Your task to perform on an android device: turn on wifi Image 0: 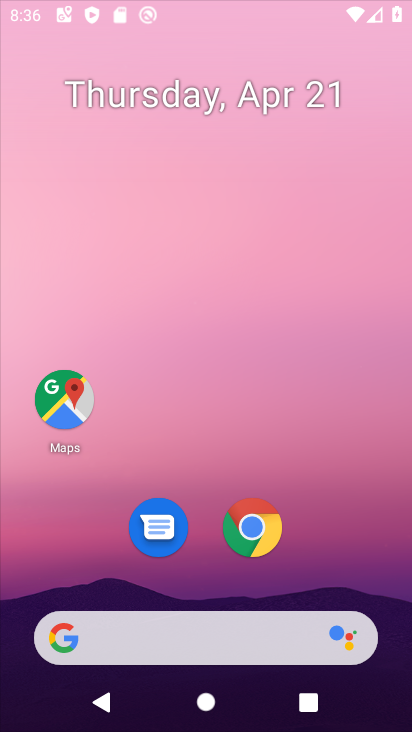
Step 0: click (278, 130)
Your task to perform on an android device: turn on wifi Image 1: 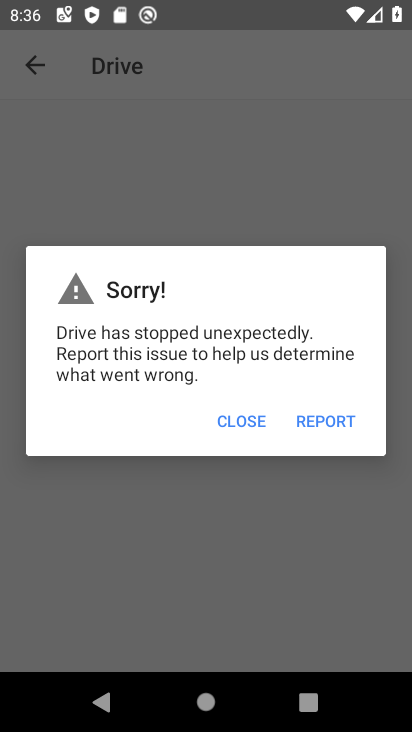
Step 1: press home button
Your task to perform on an android device: turn on wifi Image 2: 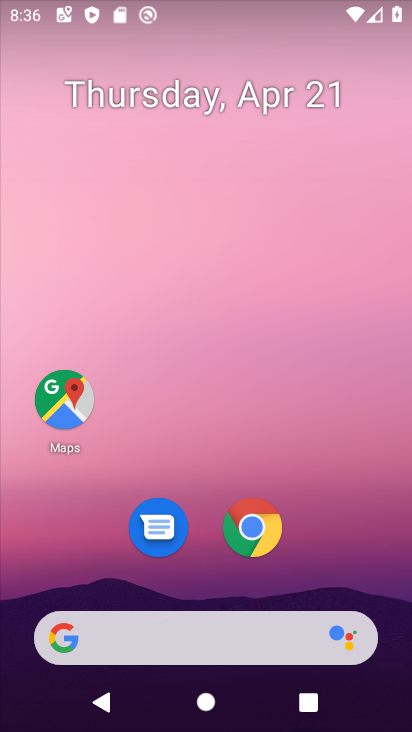
Step 2: drag from (184, 573) to (190, 111)
Your task to perform on an android device: turn on wifi Image 3: 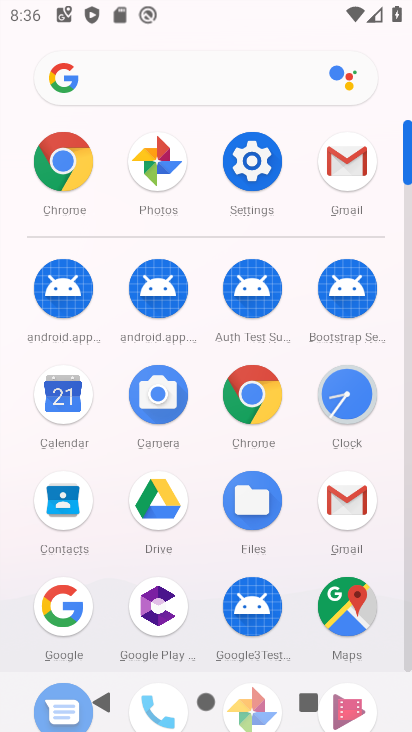
Step 3: click (269, 172)
Your task to perform on an android device: turn on wifi Image 4: 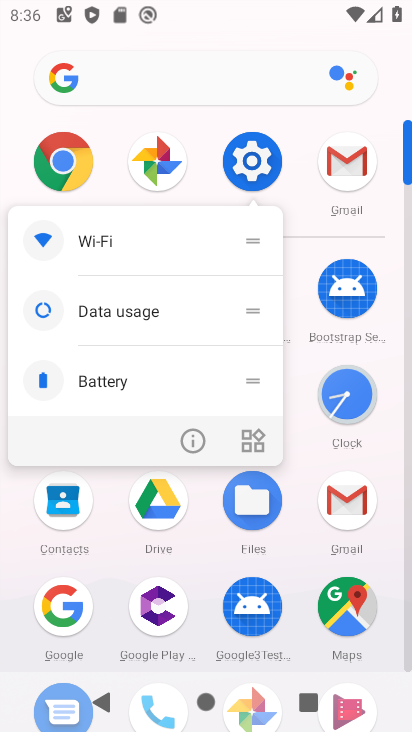
Step 4: click (269, 172)
Your task to perform on an android device: turn on wifi Image 5: 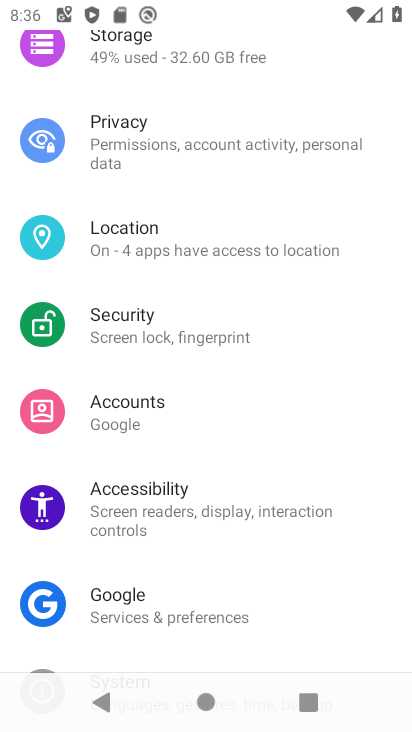
Step 5: drag from (241, 306) to (188, 576)
Your task to perform on an android device: turn on wifi Image 6: 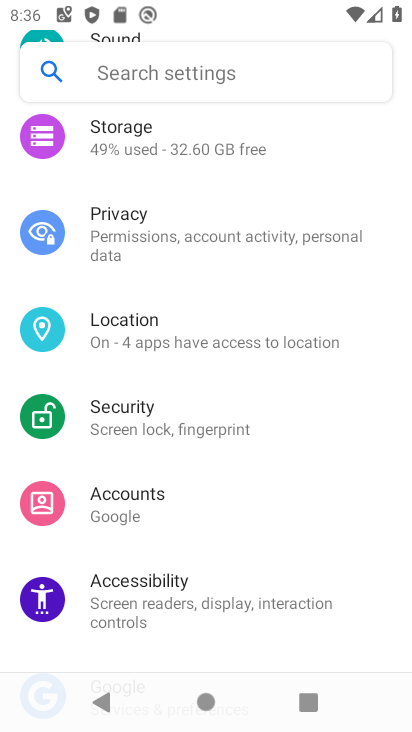
Step 6: drag from (253, 246) to (220, 542)
Your task to perform on an android device: turn on wifi Image 7: 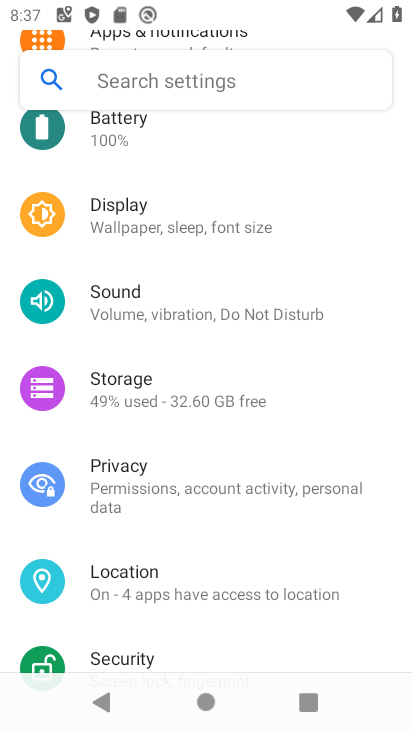
Step 7: drag from (211, 419) to (212, 636)
Your task to perform on an android device: turn on wifi Image 8: 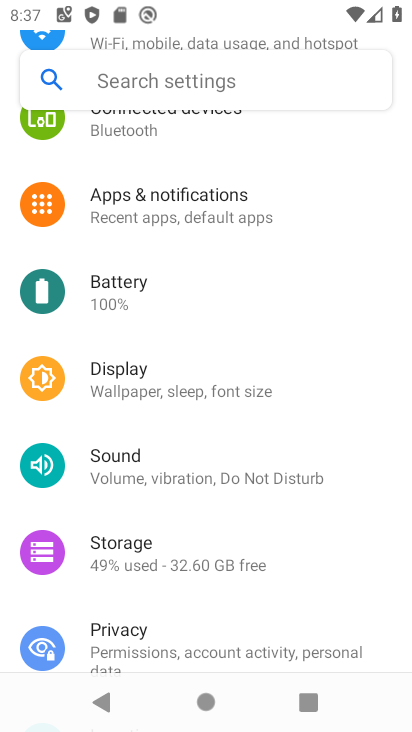
Step 8: drag from (212, 222) to (180, 565)
Your task to perform on an android device: turn on wifi Image 9: 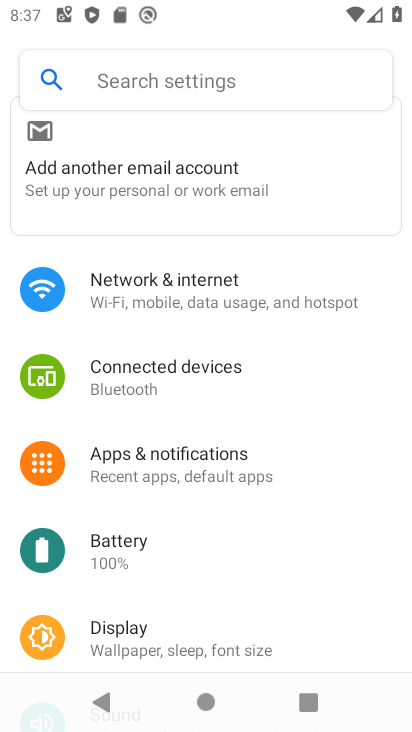
Step 9: click (248, 308)
Your task to perform on an android device: turn on wifi Image 10: 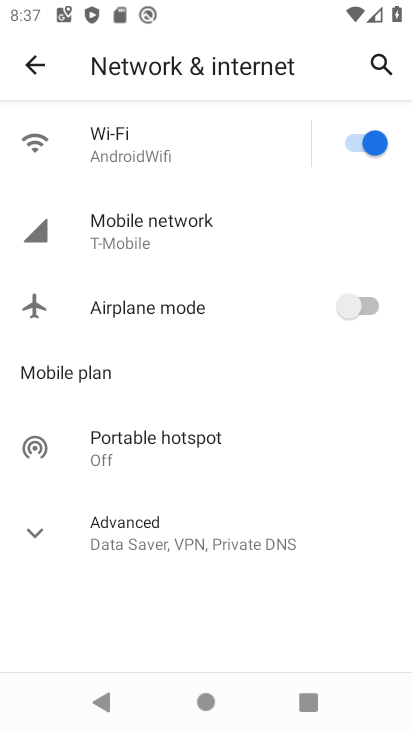
Step 10: task complete